Your task to perform on an android device: Open the map Image 0: 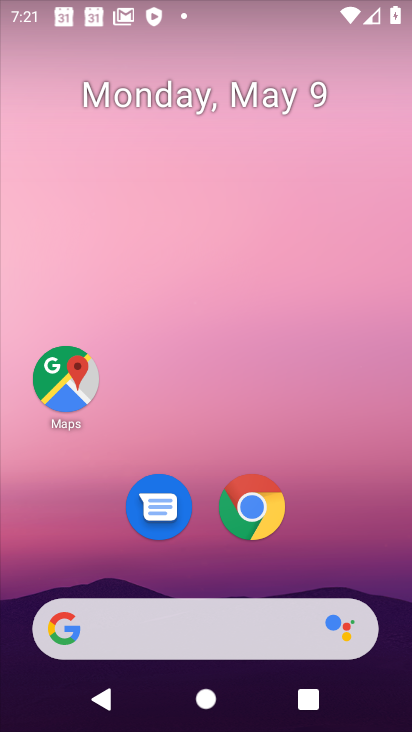
Step 0: drag from (276, 670) to (201, 251)
Your task to perform on an android device: Open the map Image 1: 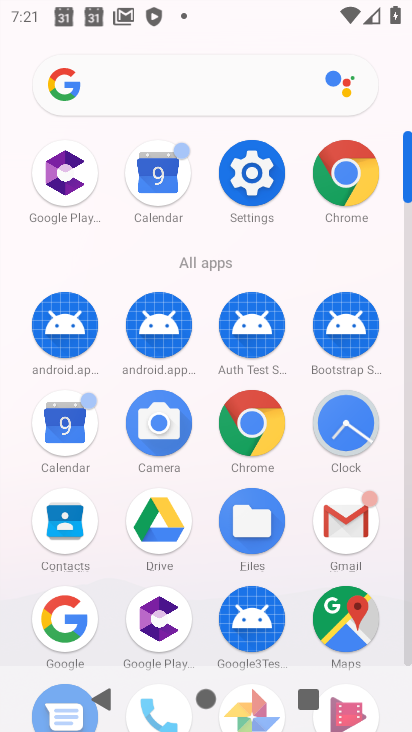
Step 1: click (355, 607)
Your task to perform on an android device: Open the map Image 2: 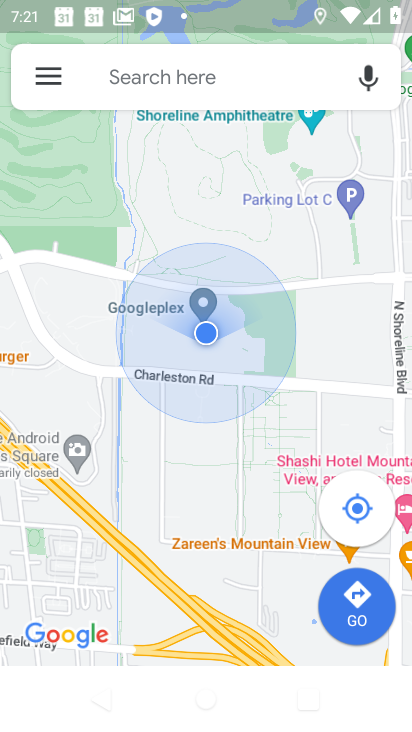
Step 2: click (358, 492)
Your task to perform on an android device: Open the map Image 3: 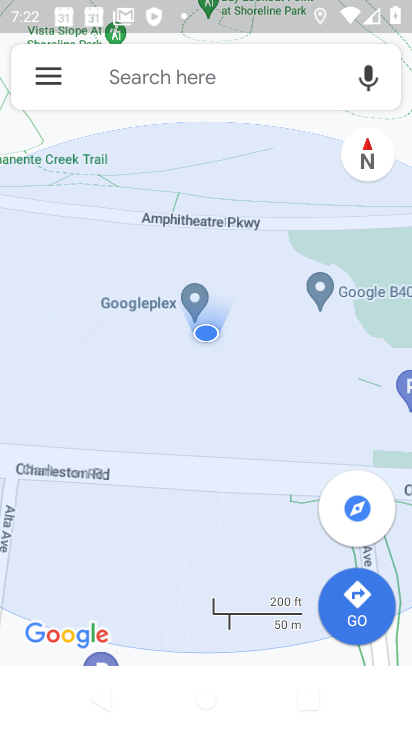
Step 3: task complete